Your task to perform on an android device: Set the phone to "Do not disturb". Image 0: 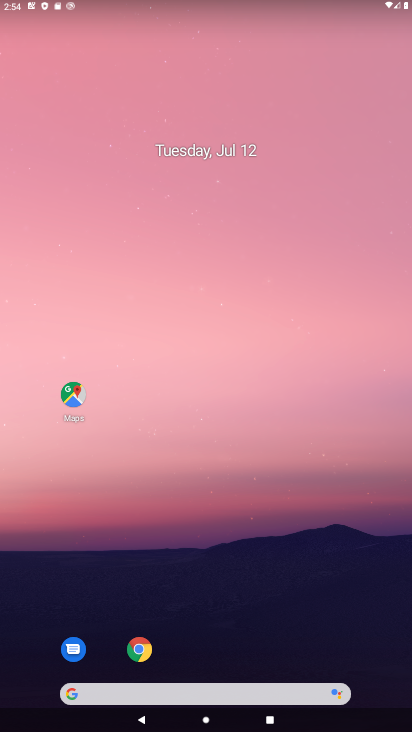
Step 0: drag from (299, 612) to (265, 54)
Your task to perform on an android device: Set the phone to "Do not disturb". Image 1: 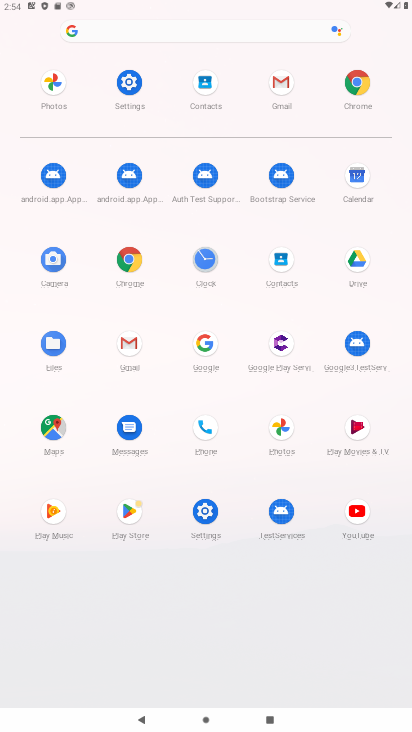
Step 1: click (138, 89)
Your task to perform on an android device: Set the phone to "Do not disturb". Image 2: 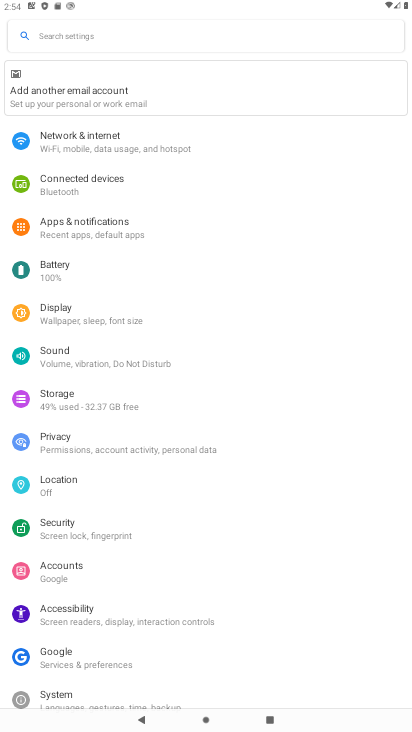
Step 2: click (110, 347)
Your task to perform on an android device: Set the phone to "Do not disturb". Image 3: 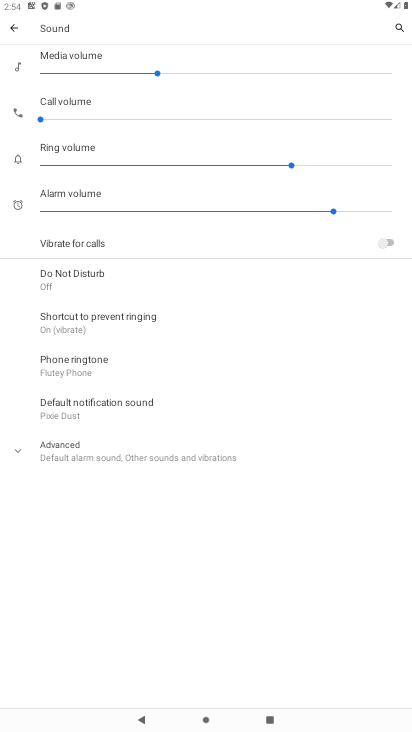
Step 3: click (117, 294)
Your task to perform on an android device: Set the phone to "Do not disturb". Image 4: 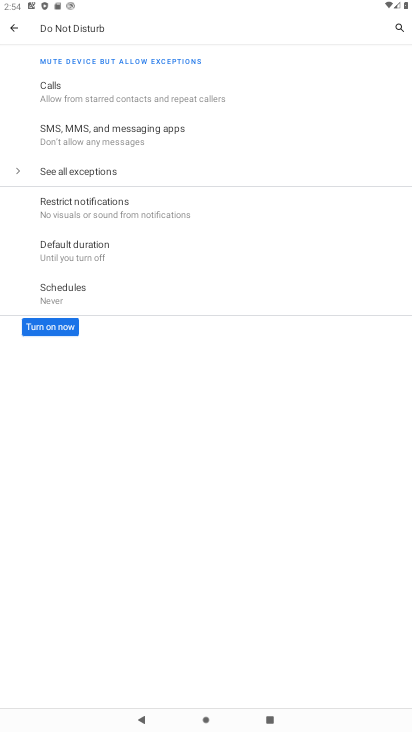
Step 4: click (74, 325)
Your task to perform on an android device: Set the phone to "Do not disturb". Image 5: 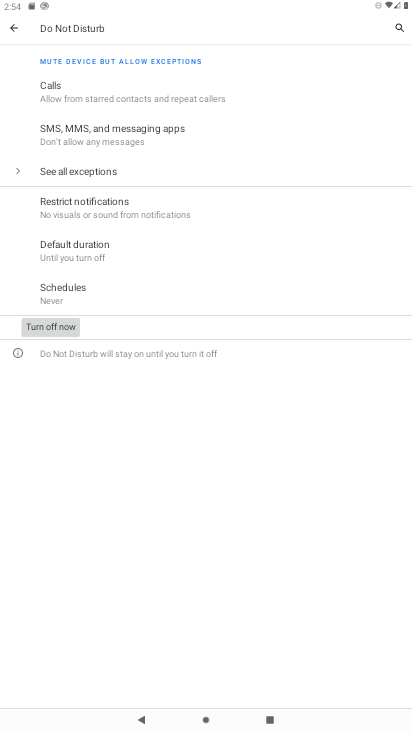
Step 5: task complete